Your task to perform on an android device: Open internet settings Image 0: 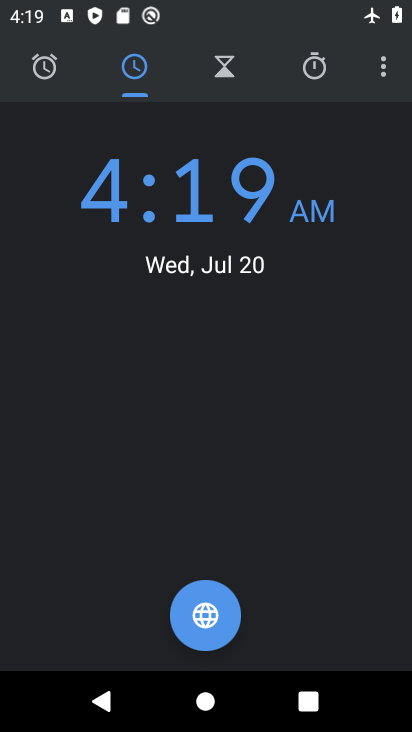
Step 0: press home button
Your task to perform on an android device: Open internet settings Image 1: 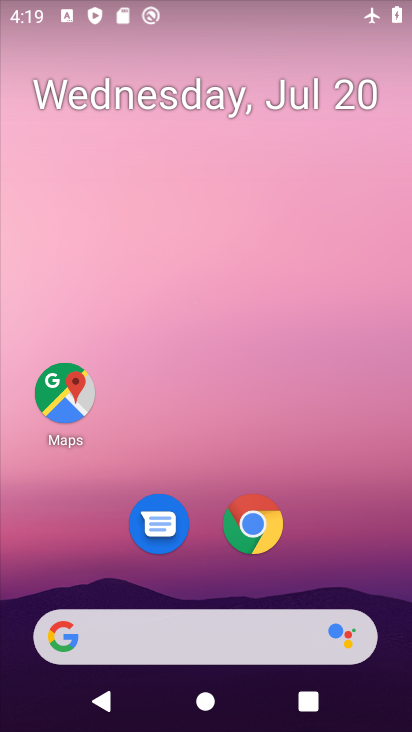
Step 1: drag from (320, 567) to (364, 49)
Your task to perform on an android device: Open internet settings Image 2: 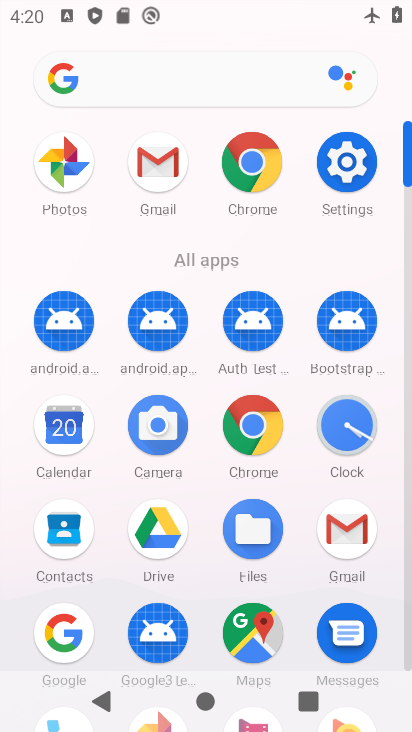
Step 2: click (352, 157)
Your task to perform on an android device: Open internet settings Image 3: 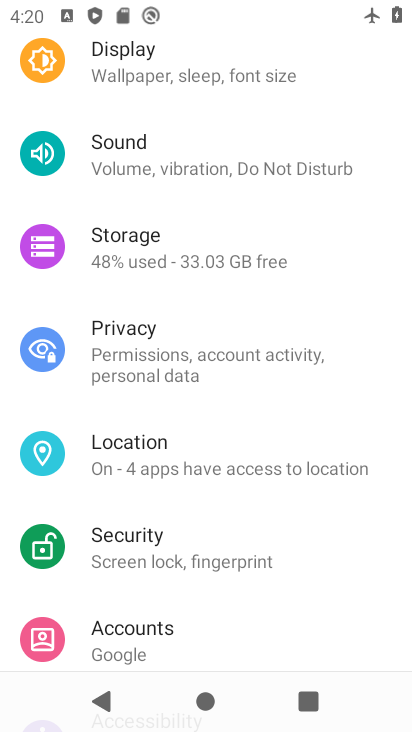
Step 3: drag from (212, 110) to (201, 567)
Your task to perform on an android device: Open internet settings Image 4: 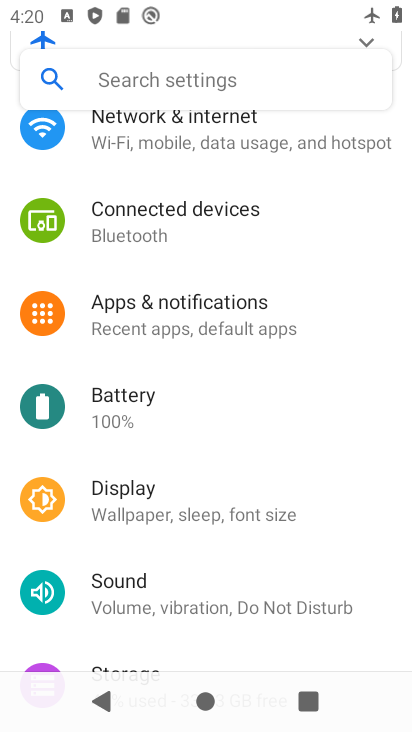
Step 4: click (252, 131)
Your task to perform on an android device: Open internet settings Image 5: 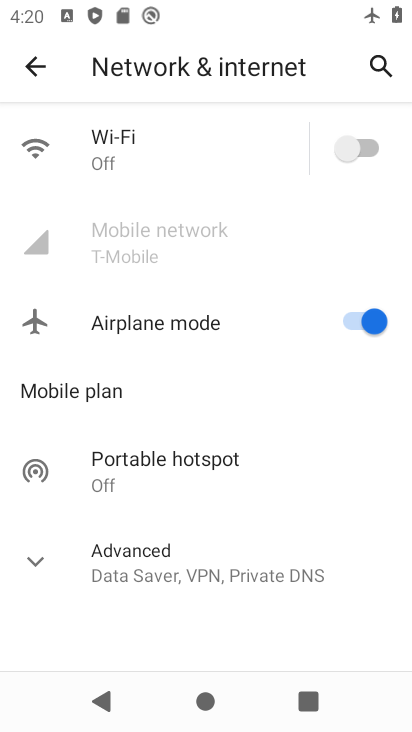
Step 5: task complete